Your task to perform on an android device: create a new album in the google photos Image 0: 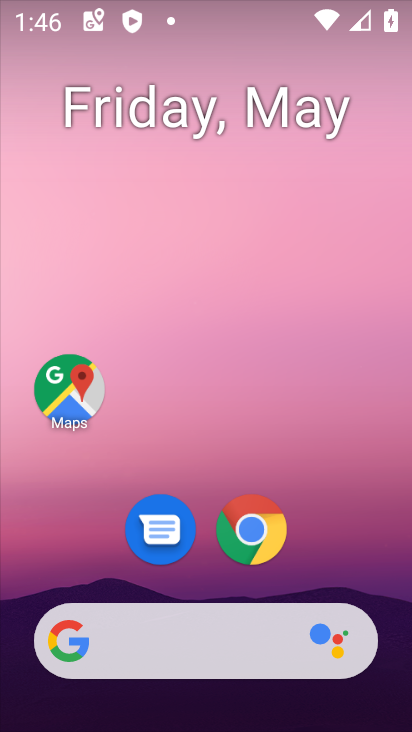
Step 0: drag from (333, 562) to (316, 87)
Your task to perform on an android device: create a new album in the google photos Image 1: 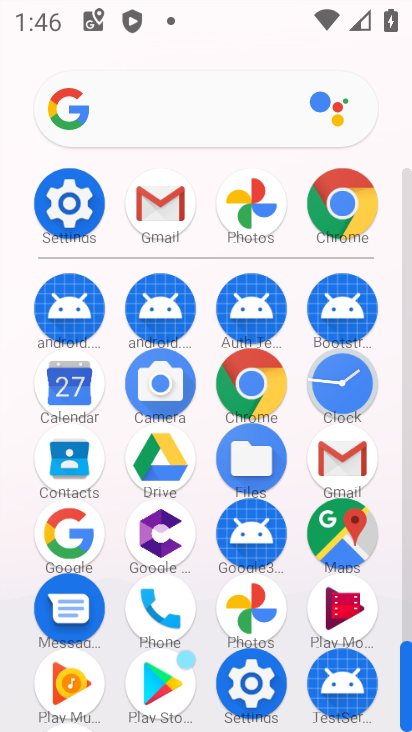
Step 1: click (271, 608)
Your task to perform on an android device: create a new album in the google photos Image 2: 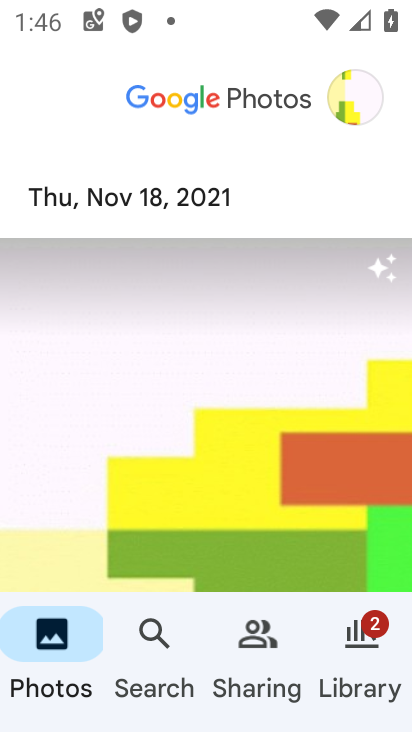
Step 2: click (338, 669)
Your task to perform on an android device: create a new album in the google photos Image 3: 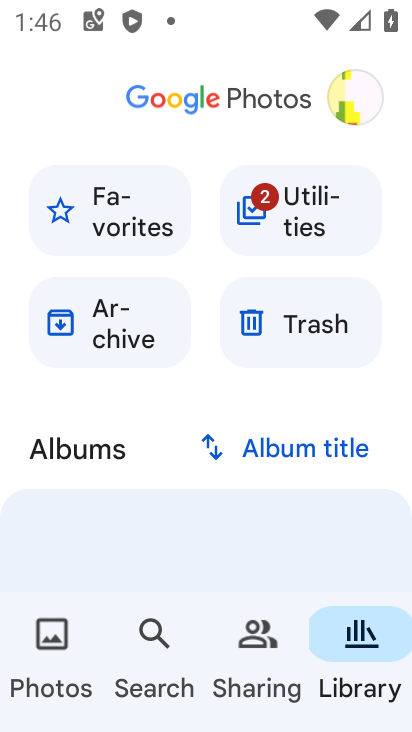
Step 3: click (110, 525)
Your task to perform on an android device: create a new album in the google photos Image 4: 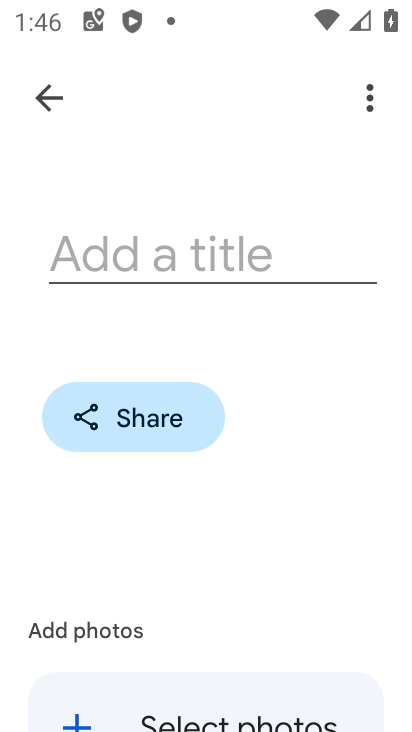
Step 4: click (134, 259)
Your task to perform on an android device: create a new album in the google photos Image 5: 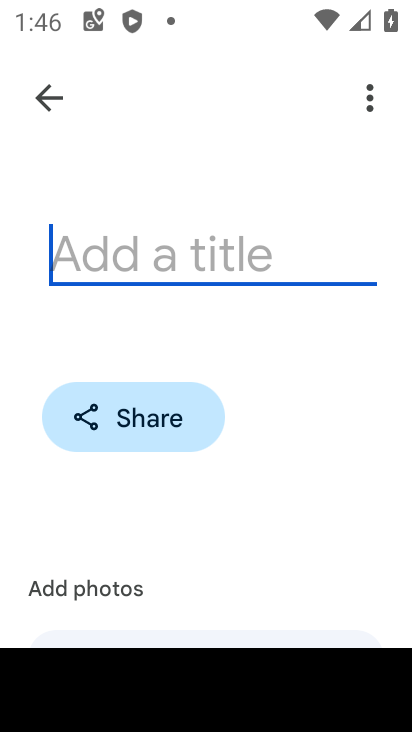
Step 5: type "dcvcevsf"
Your task to perform on an android device: create a new album in the google photos Image 6: 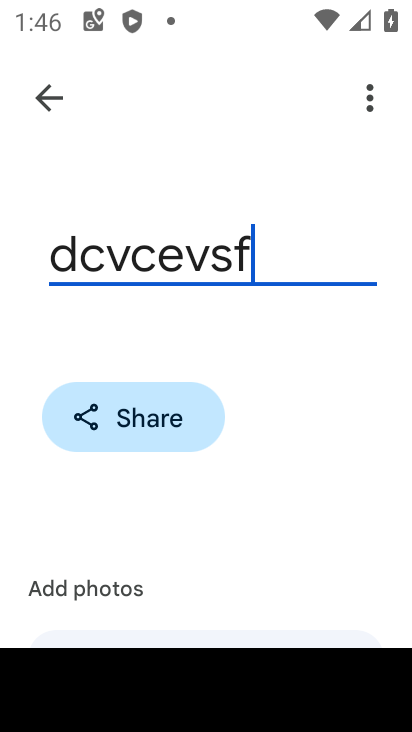
Step 6: click (183, 638)
Your task to perform on an android device: create a new album in the google photos Image 7: 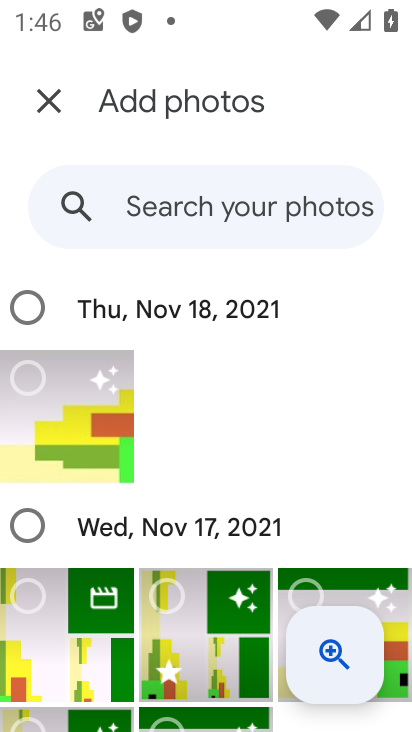
Step 7: click (19, 305)
Your task to perform on an android device: create a new album in the google photos Image 8: 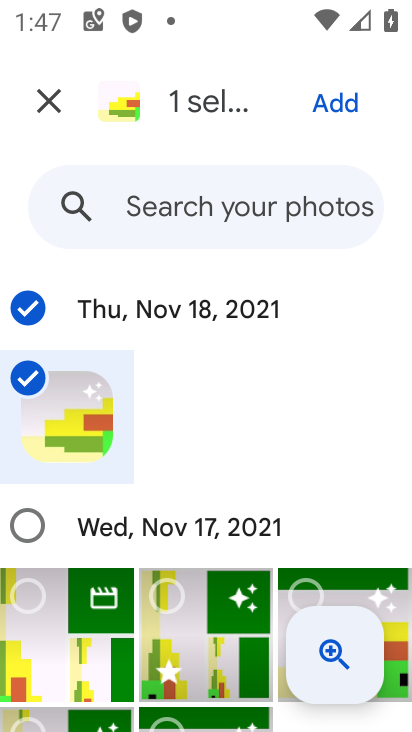
Step 8: click (32, 528)
Your task to perform on an android device: create a new album in the google photos Image 9: 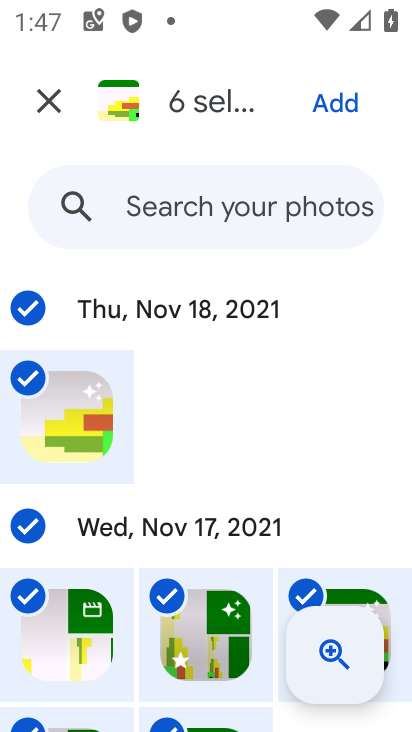
Step 9: click (361, 97)
Your task to perform on an android device: create a new album in the google photos Image 10: 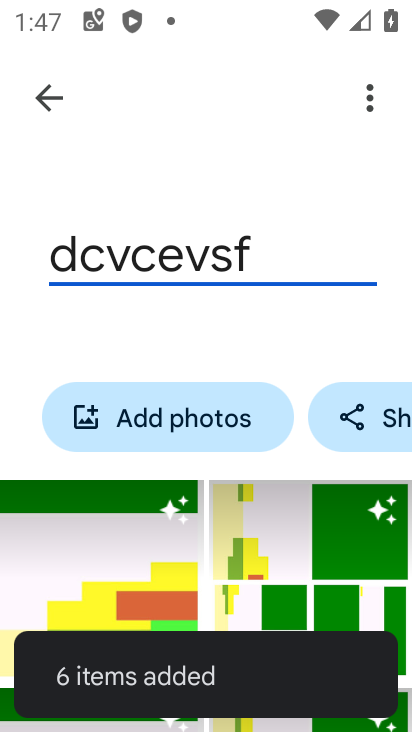
Step 10: task complete